Your task to perform on an android device: Search for pizza restaurants on Maps Image 0: 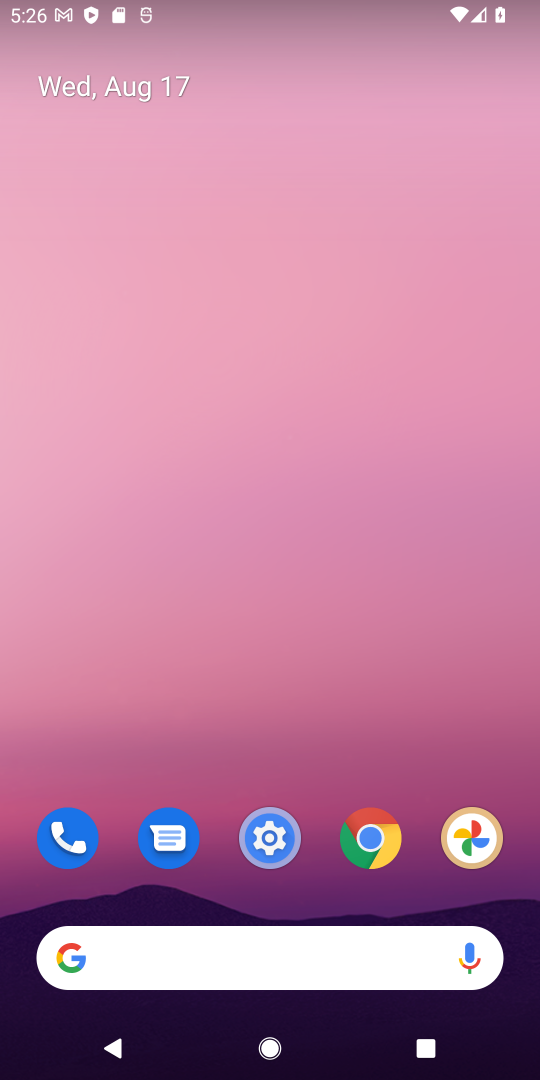
Step 0: drag from (250, 890) to (332, 16)
Your task to perform on an android device: Search for pizza restaurants on Maps Image 1: 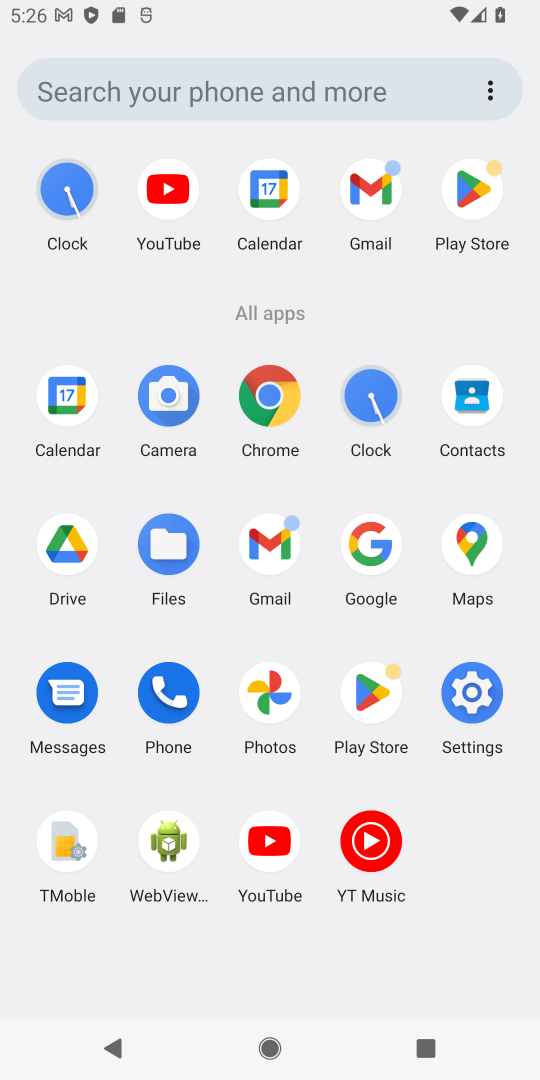
Step 1: click (455, 562)
Your task to perform on an android device: Search for pizza restaurants on Maps Image 2: 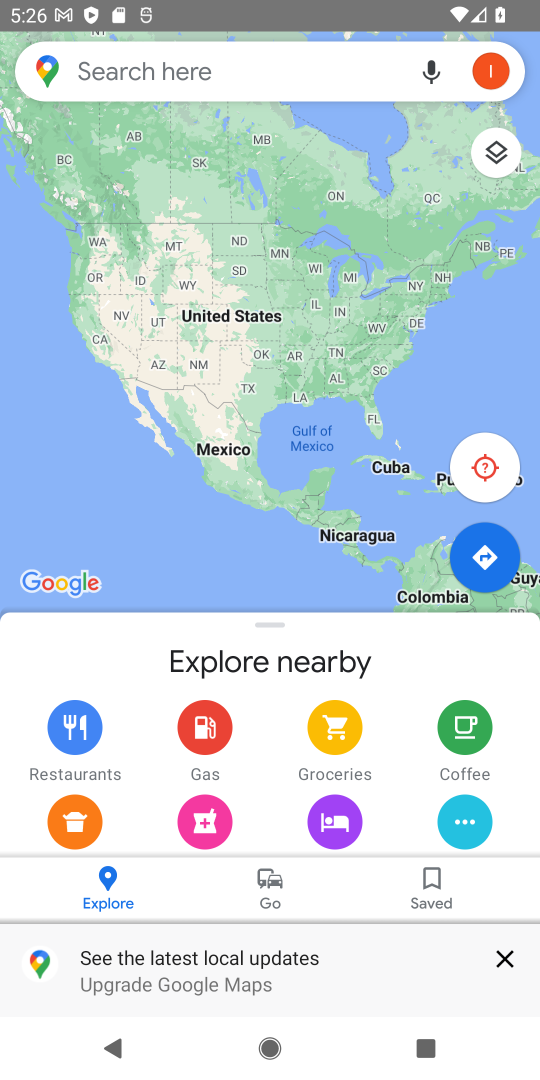
Step 2: click (94, 61)
Your task to perform on an android device: Search for pizza restaurants on Maps Image 3: 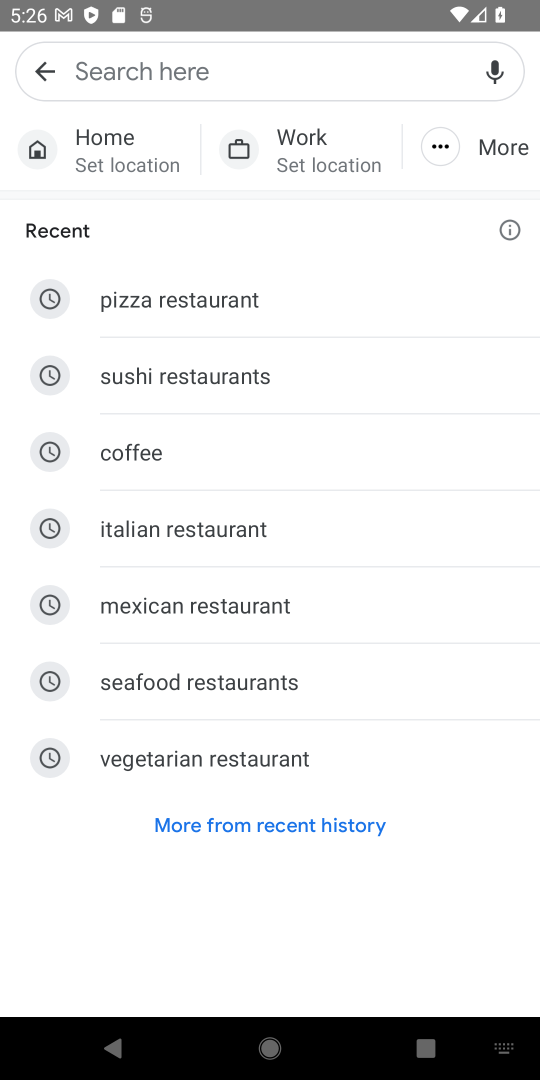
Step 3: click (212, 304)
Your task to perform on an android device: Search for pizza restaurants on Maps Image 4: 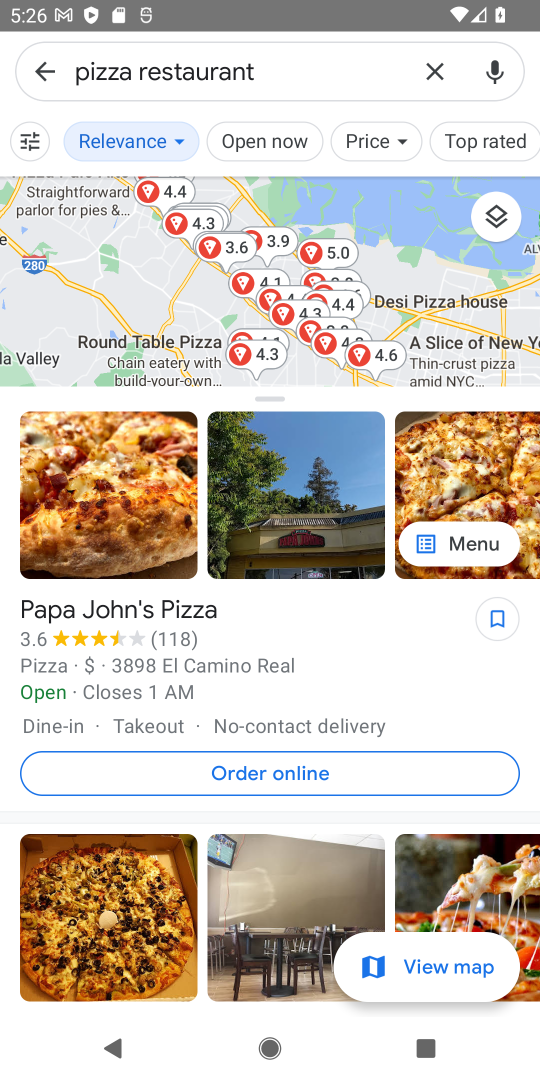
Step 4: task complete